Your task to perform on an android device: turn smart compose on in the gmail app Image 0: 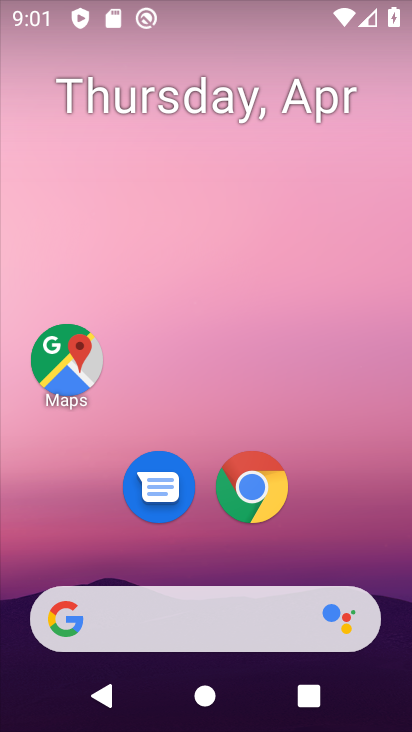
Step 0: drag from (367, 548) to (365, 82)
Your task to perform on an android device: turn smart compose on in the gmail app Image 1: 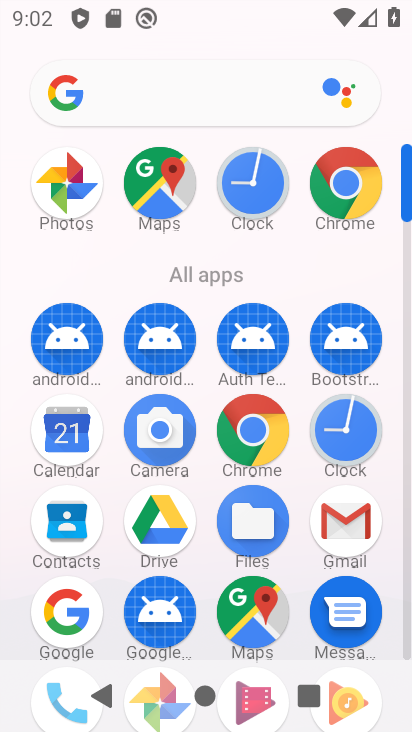
Step 1: click (356, 531)
Your task to perform on an android device: turn smart compose on in the gmail app Image 2: 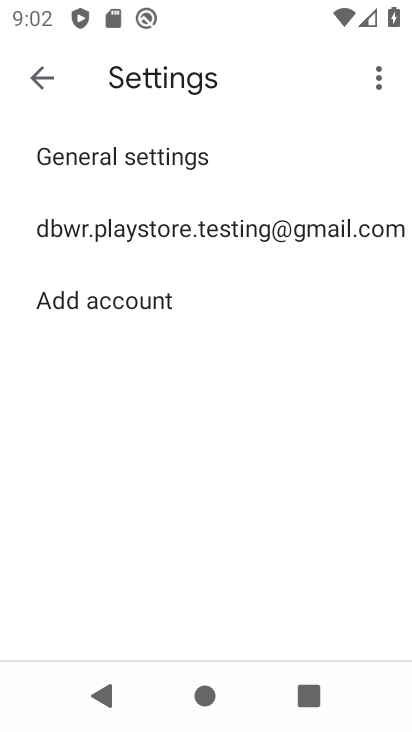
Step 2: click (339, 243)
Your task to perform on an android device: turn smart compose on in the gmail app Image 3: 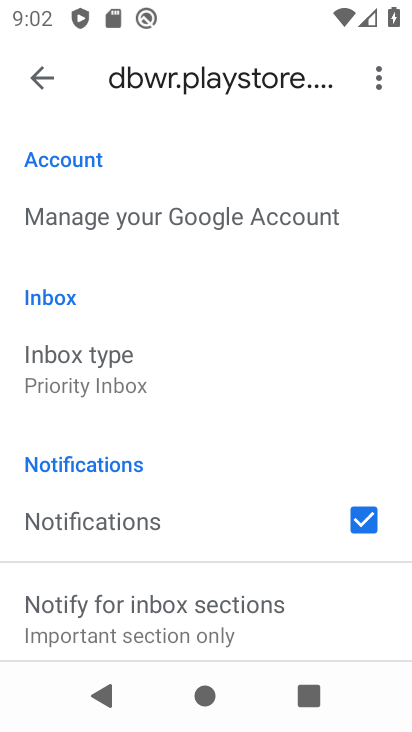
Step 3: task complete